Your task to perform on an android device: toggle wifi Image 0: 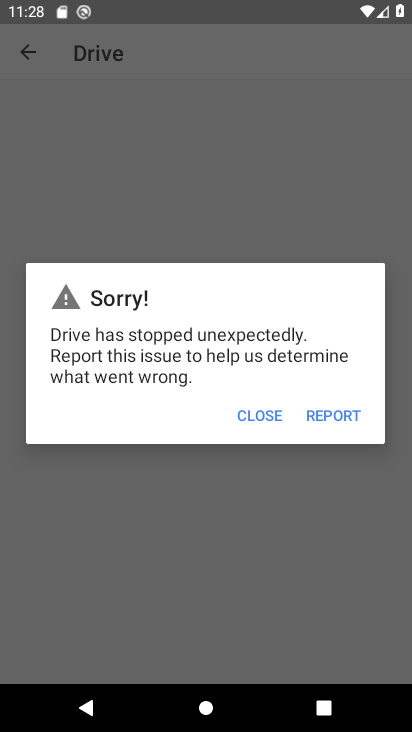
Step 0: press home button
Your task to perform on an android device: toggle wifi Image 1: 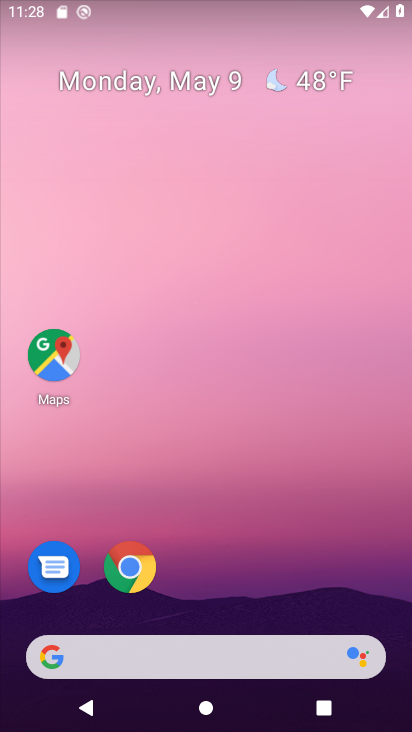
Step 1: drag from (214, 595) to (243, 282)
Your task to perform on an android device: toggle wifi Image 2: 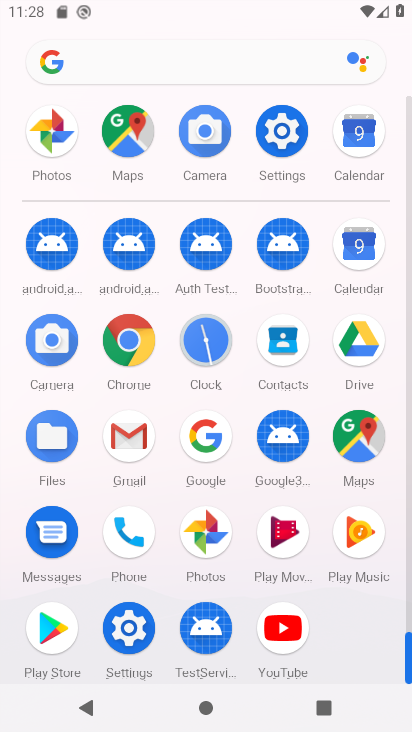
Step 2: click (280, 150)
Your task to perform on an android device: toggle wifi Image 3: 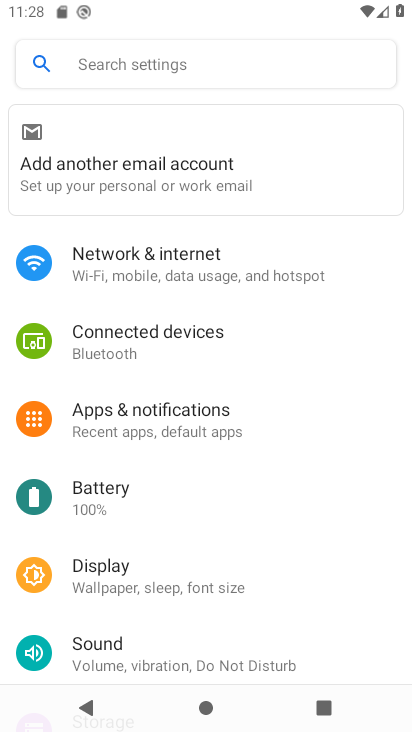
Step 3: click (167, 285)
Your task to perform on an android device: toggle wifi Image 4: 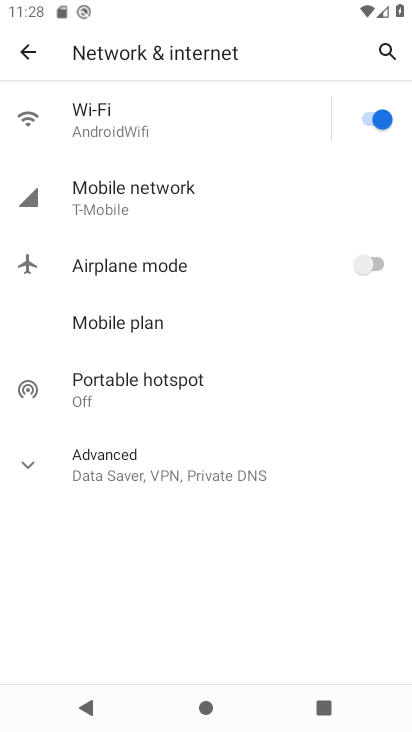
Step 4: click (371, 114)
Your task to perform on an android device: toggle wifi Image 5: 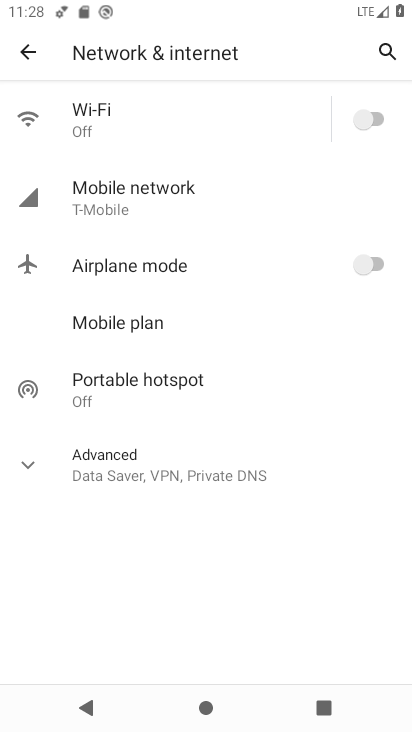
Step 5: task complete